Your task to perform on an android device: Go to display settings Image 0: 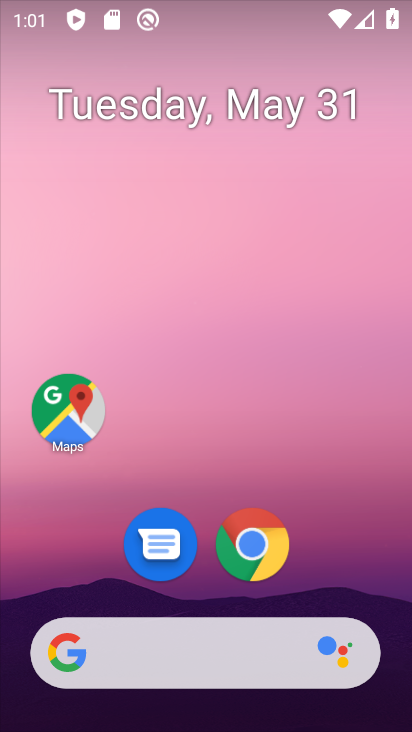
Step 0: drag from (224, 428) to (260, 103)
Your task to perform on an android device: Go to display settings Image 1: 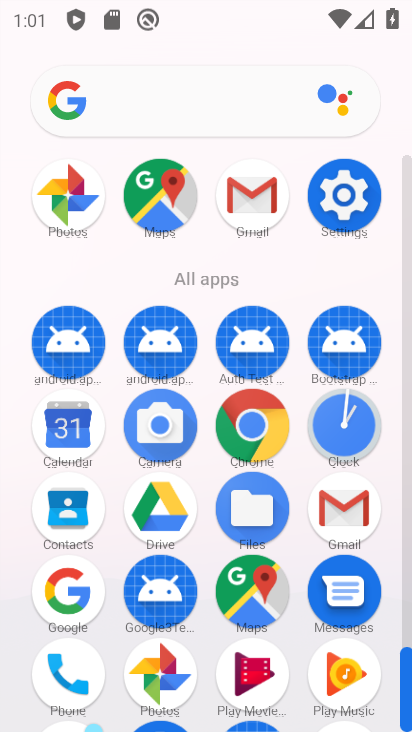
Step 1: click (340, 191)
Your task to perform on an android device: Go to display settings Image 2: 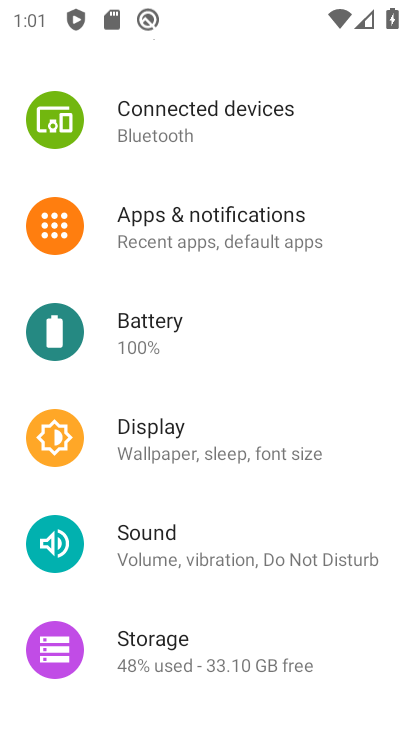
Step 2: click (173, 441)
Your task to perform on an android device: Go to display settings Image 3: 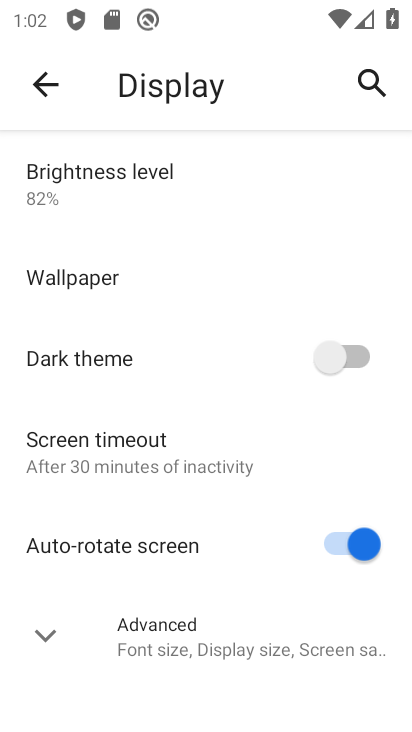
Step 3: task complete